Your task to perform on an android device: clear all cookies in the chrome app Image 0: 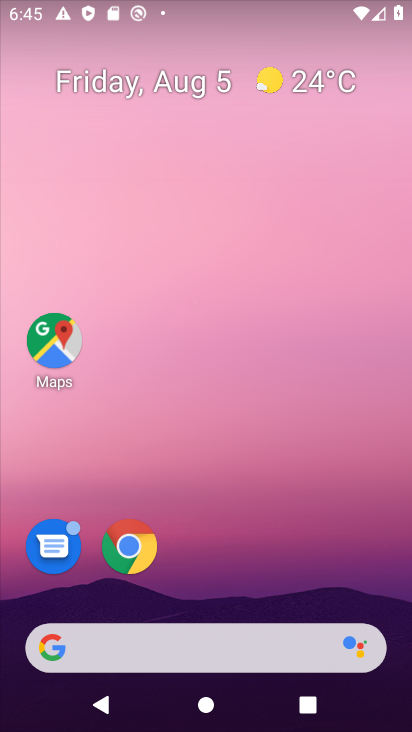
Step 0: drag from (163, 473) to (209, 238)
Your task to perform on an android device: clear all cookies in the chrome app Image 1: 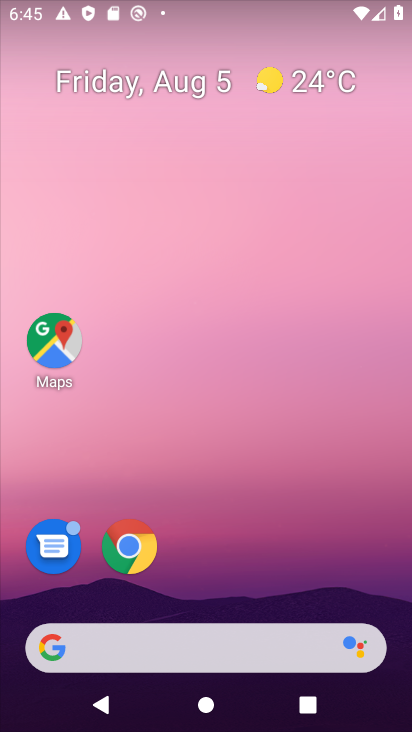
Step 1: drag from (195, 576) to (214, 66)
Your task to perform on an android device: clear all cookies in the chrome app Image 2: 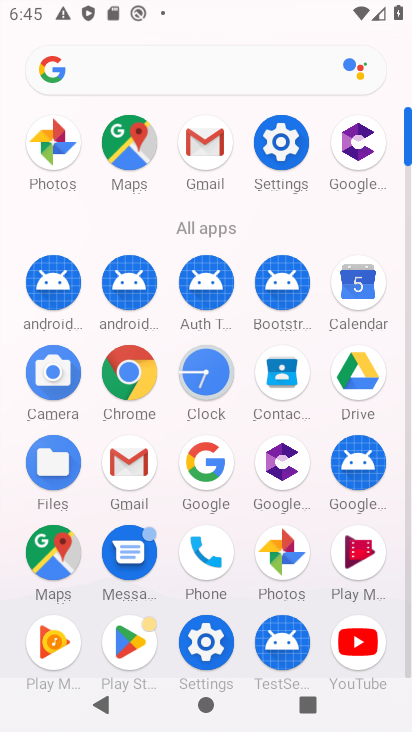
Step 2: click (129, 374)
Your task to perform on an android device: clear all cookies in the chrome app Image 3: 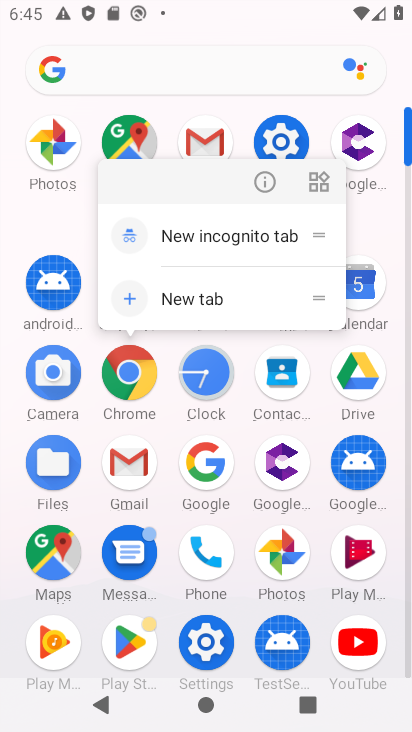
Step 3: click (260, 181)
Your task to perform on an android device: clear all cookies in the chrome app Image 4: 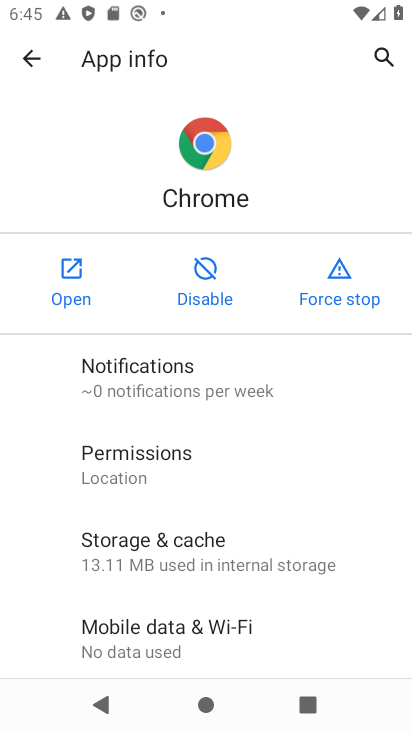
Step 4: click (69, 287)
Your task to perform on an android device: clear all cookies in the chrome app Image 5: 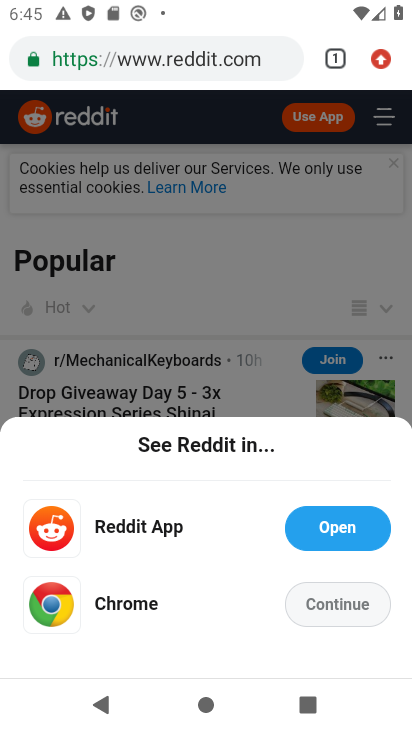
Step 5: drag from (373, 58) to (201, 417)
Your task to perform on an android device: clear all cookies in the chrome app Image 6: 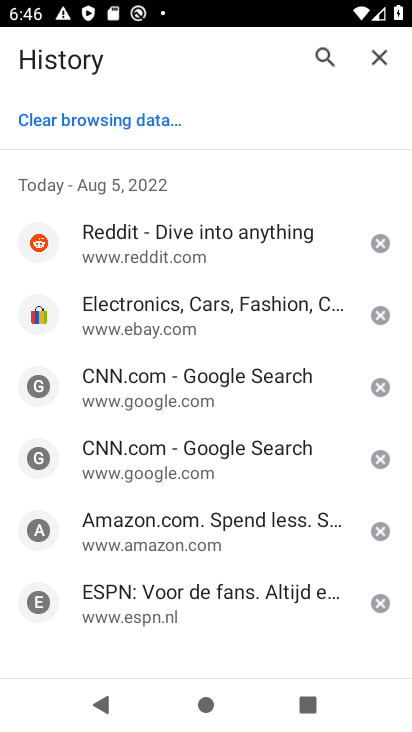
Step 6: click (106, 127)
Your task to perform on an android device: clear all cookies in the chrome app Image 7: 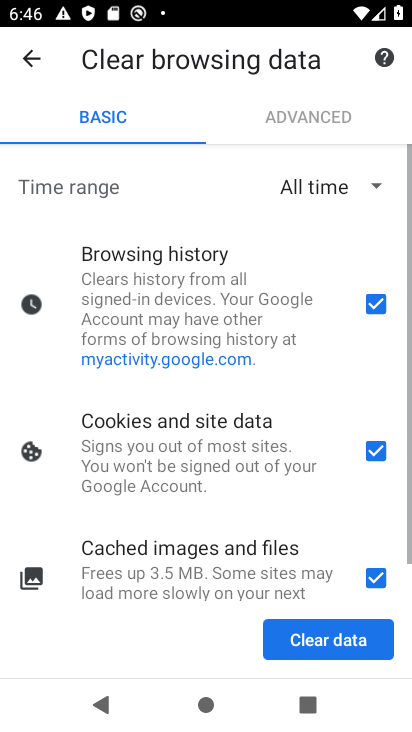
Step 7: click (367, 290)
Your task to perform on an android device: clear all cookies in the chrome app Image 8: 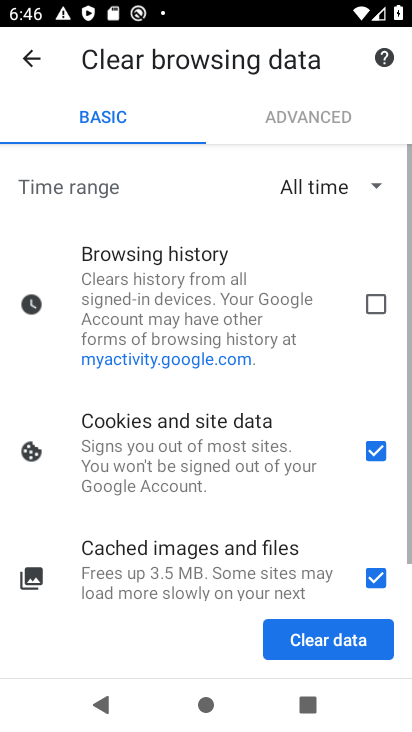
Step 8: drag from (172, 485) to (248, 172)
Your task to perform on an android device: clear all cookies in the chrome app Image 9: 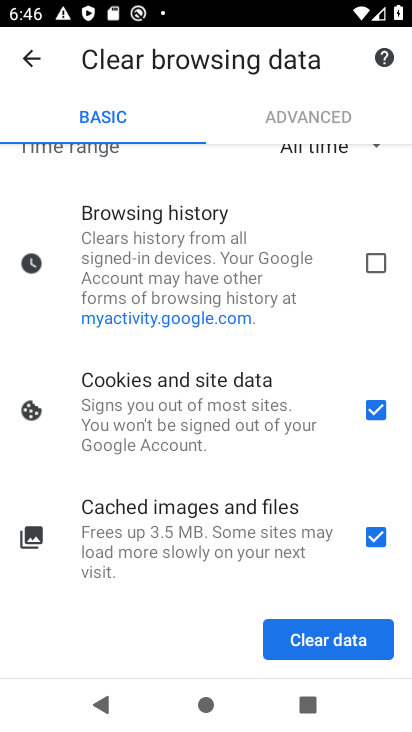
Step 9: click (370, 532)
Your task to perform on an android device: clear all cookies in the chrome app Image 10: 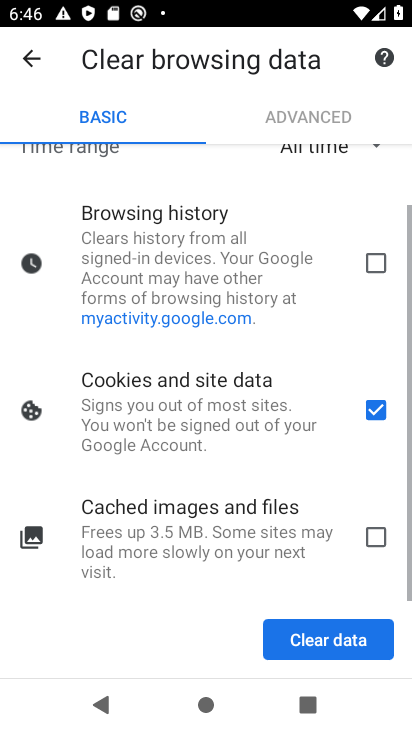
Step 10: click (310, 652)
Your task to perform on an android device: clear all cookies in the chrome app Image 11: 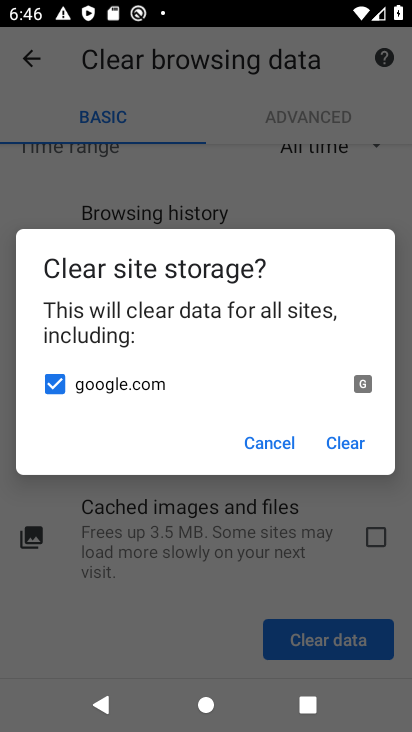
Step 11: click (349, 455)
Your task to perform on an android device: clear all cookies in the chrome app Image 12: 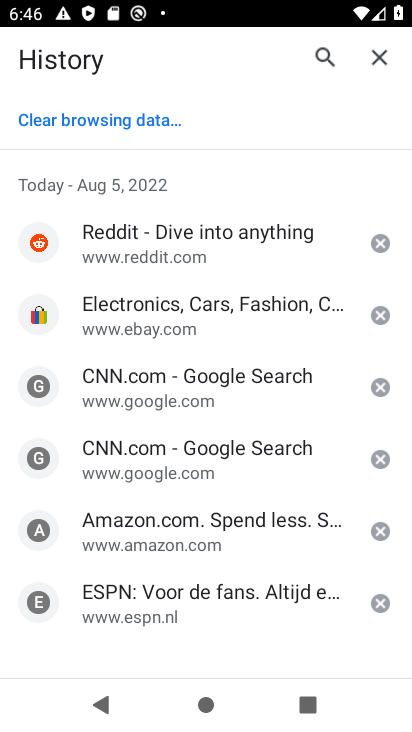
Step 12: task complete